Your task to perform on an android device: open sync settings in chrome Image 0: 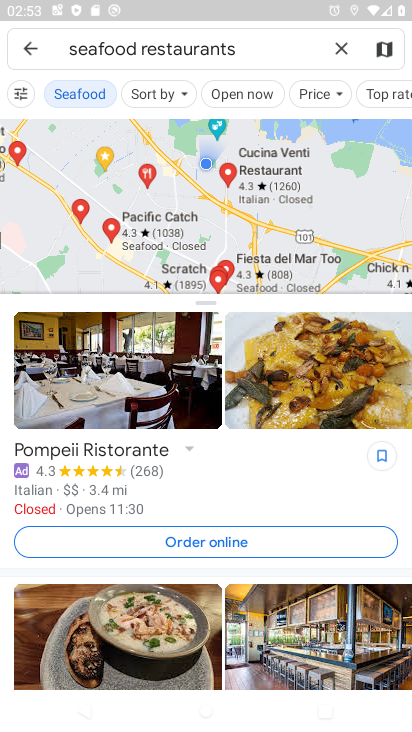
Step 0: press home button
Your task to perform on an android device: open sync settings in chrome Image 1: 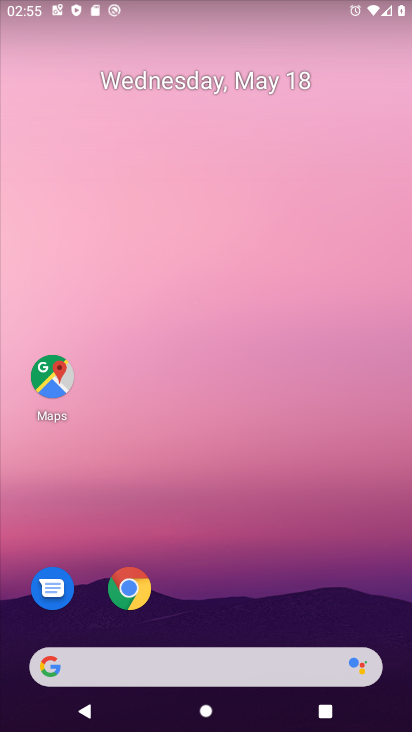
Step 1: click (134, 590)
Your task to perform on an android device: open sync settings in chrome Image 2: 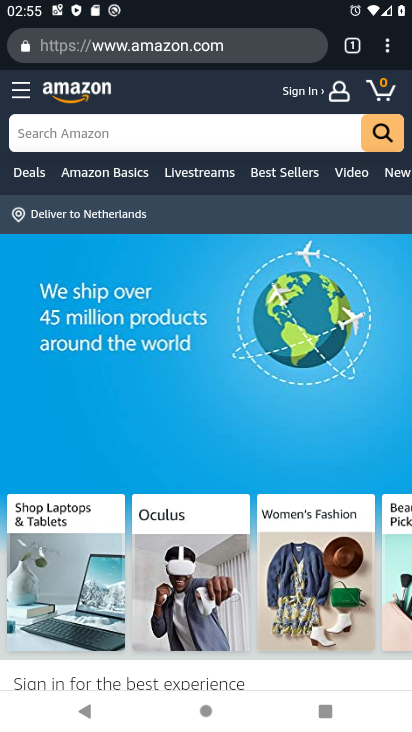
Step 2: click (388, 43)
Your task to perform on an android device: open sync settings in chrome Image 3: 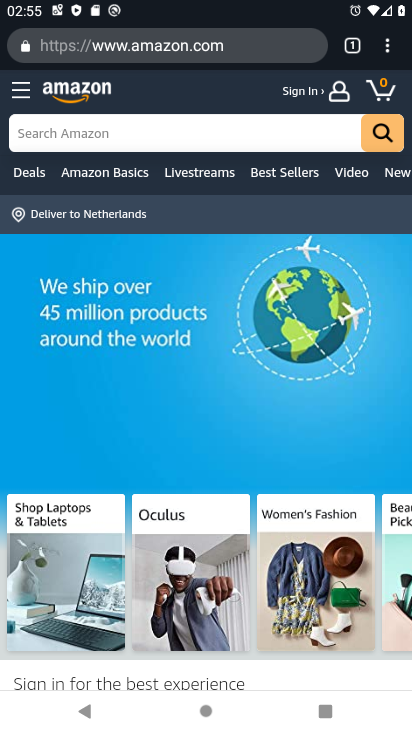
Step 3: click (376, 44)
Your task to perform on an android device: open sync settings in chrome Image 4: 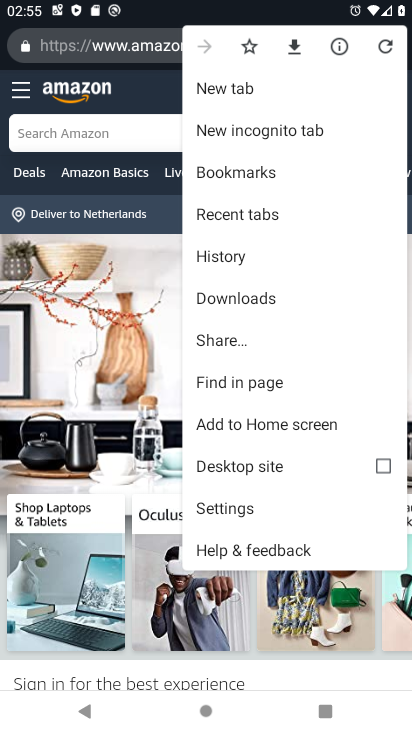
Step 4: click (266, 497)
Your task to perform on an android device: open sync settings in chrome Image 5: 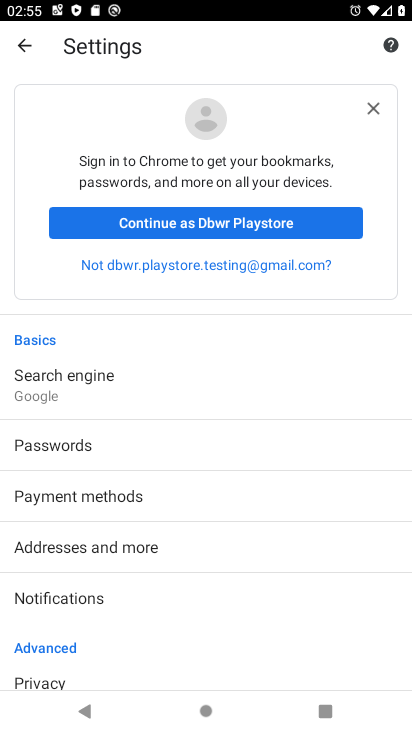
Step 5: drag from (80, 659) to (143, 231)
Your task to perform on an android device: open sync settings in chrome Image 6: 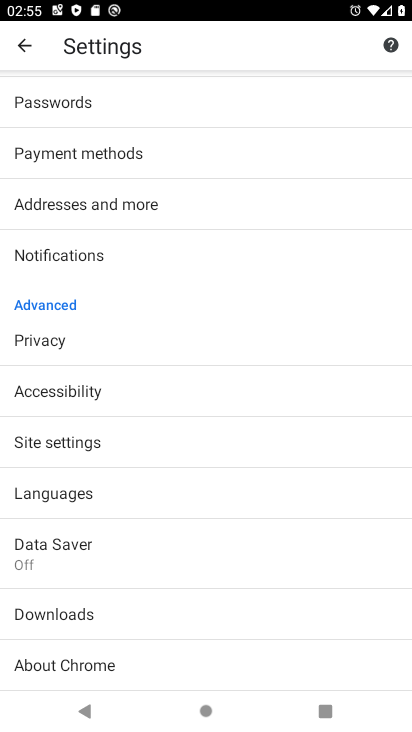
Step 6: click (89, 440)
Your task to perform on an android device: open sync settings in chrome Image 7: 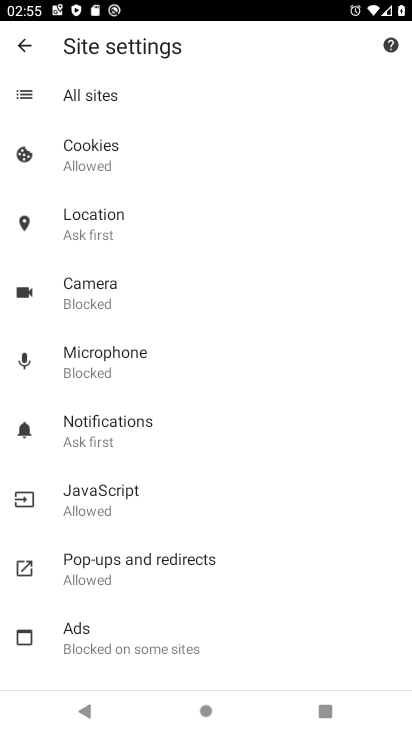
Step 7: drag from (0, 618) to (107, 232)
Your task to perform on an android device: open sync settings in chrome Image 8: 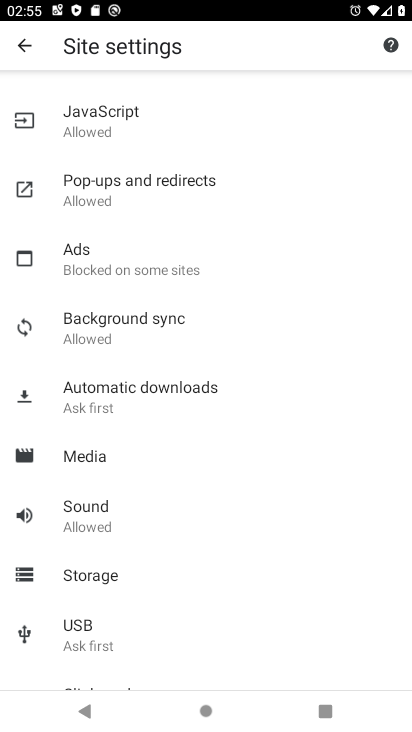
Step 8: click (127, 328)
Your task to perform on an android device: open sync settings in chrome Image 9: 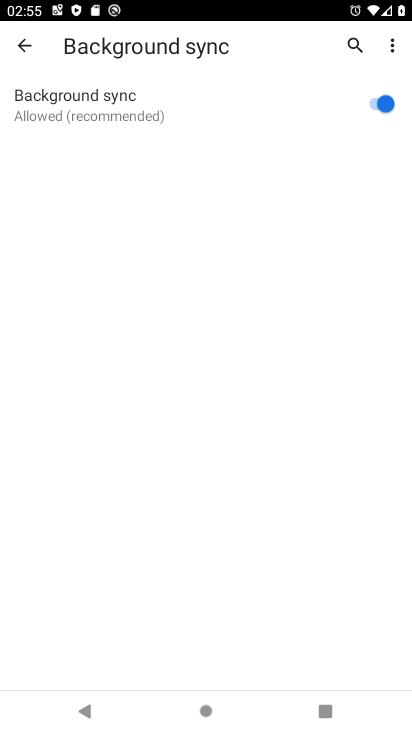
Step 9: task complete